Your task to perform on an android device: open a new tab in the chrome app Image 0: 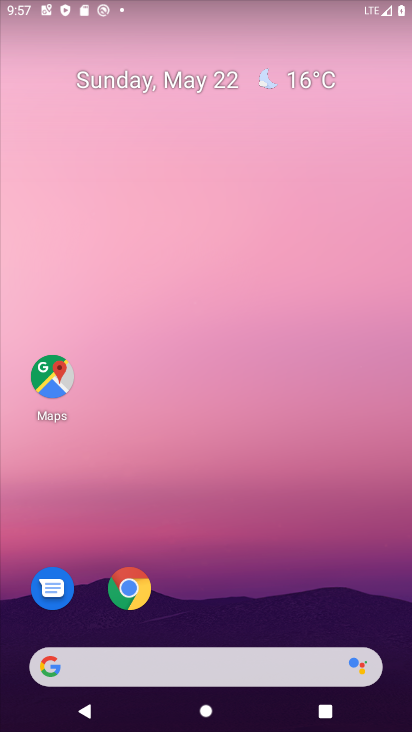
Step 0: click (122, 570)
Your task to perform on an android device: open a new tab in the chrome app Image 1: 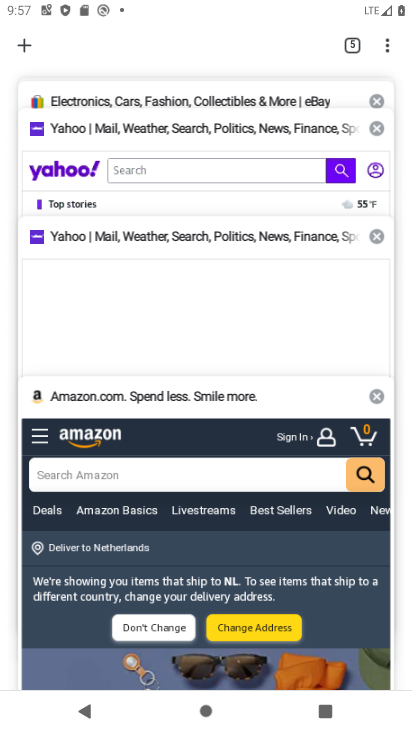
Step 1: click (20, 41)
Your task to perform on an android device: open a new tab in the chrome app Image 2: 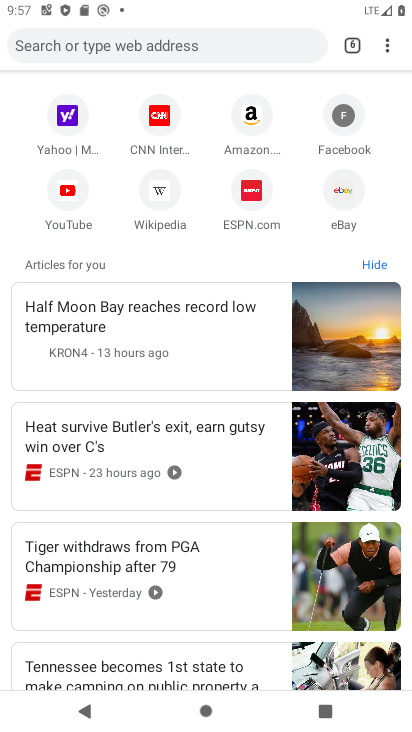
Step 2: task complete